Your task to perform on an android device: Open Reddit.com Image 0: 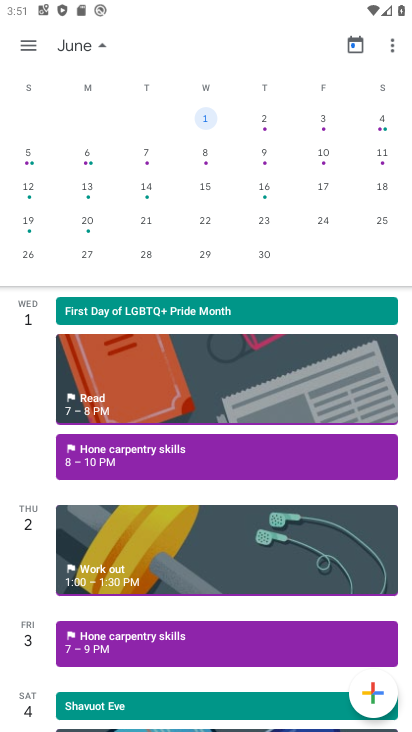
Step 0: press back button
Your task to perform on an android device: Open Reddit.com Image 1: 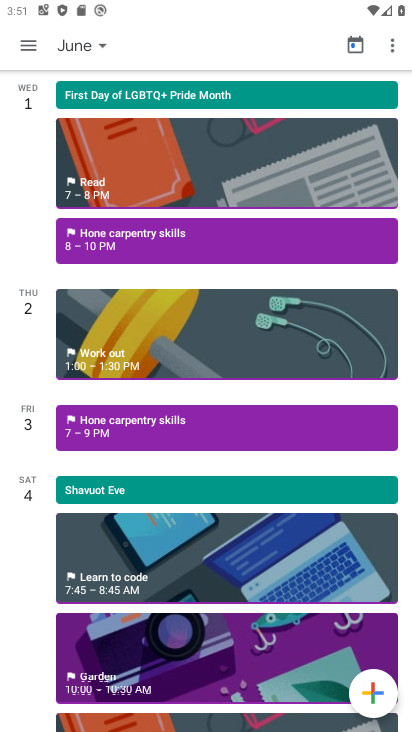
Step 1: press back button
Your task to perform on an android device: Open Reddit.com Image 2: 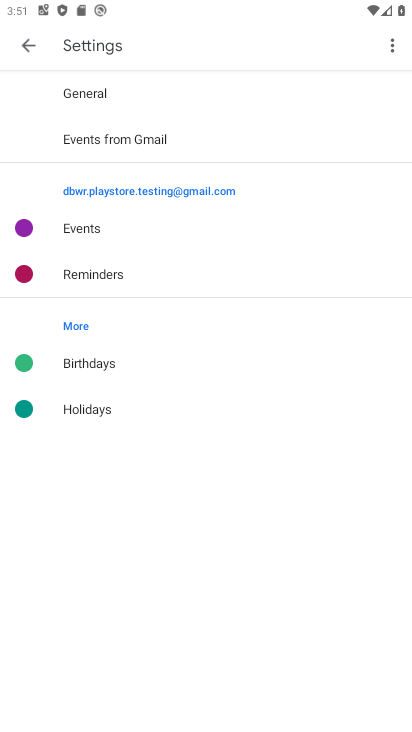
Step 2: press back button
Your task to perform on an android device: Open Reddit.com Image 3: 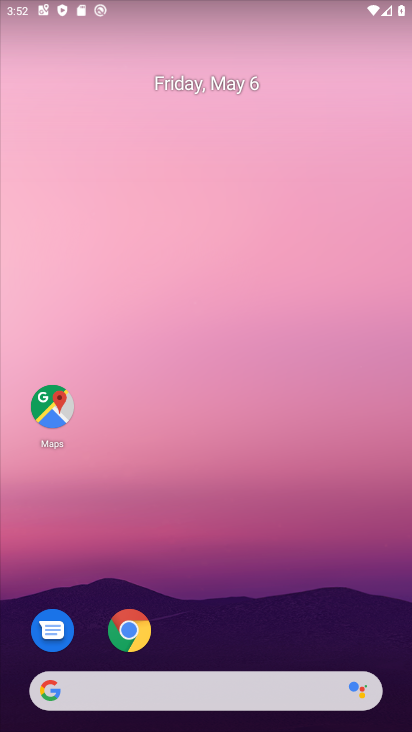
Step 3: click (115, 660)
Your task to perform on an android device: Open Reddit.com Image 4: 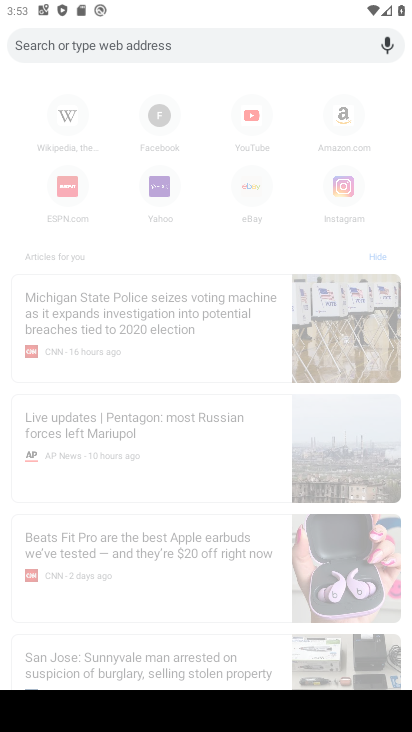
Step 4: click (122, 51)
Your task to perform on an android device: Open Reddit.com Image 5: 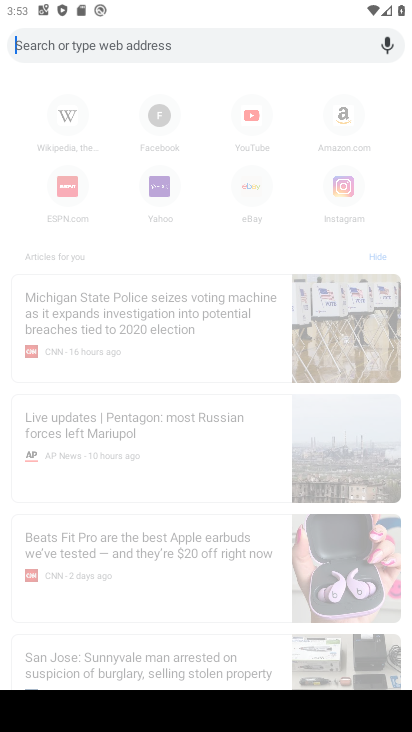
Step 5: type "reddit.com"
Your task to perform on an android device: Open Reddit.com Image 6: 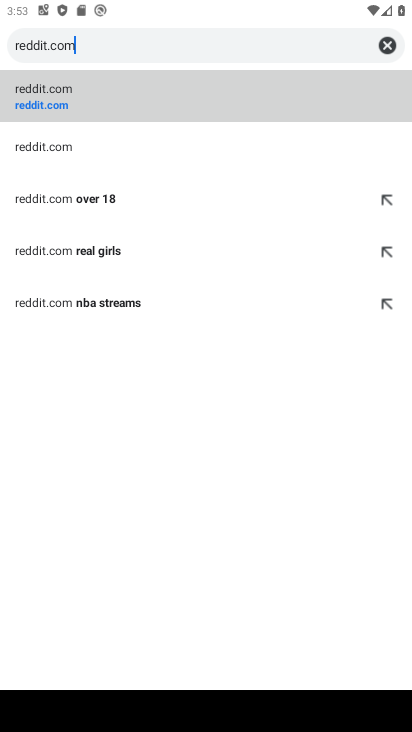
Step 6: click (92, 91)
Your task to perform on an android device: Open Reddit.com Image 7: 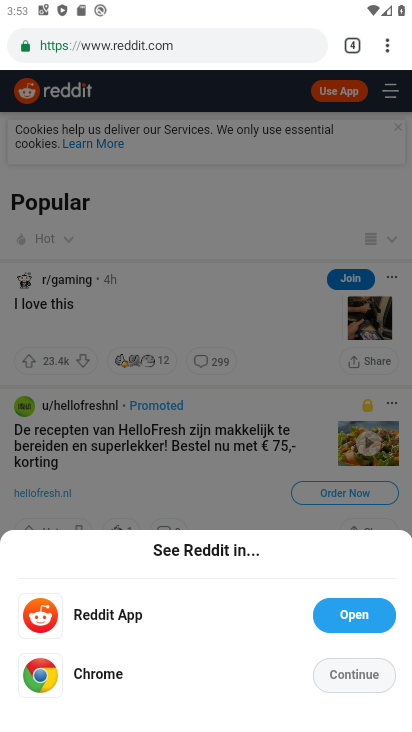
Step 7: task complete